Your task to perform on an android device: change alarm snooze length Image 0: 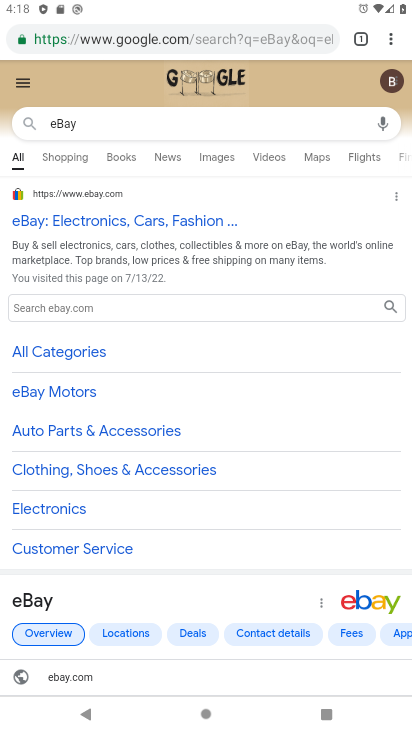
Step 0: press home button
Your task to perform on an android device: change alarm snooze length Image 1: 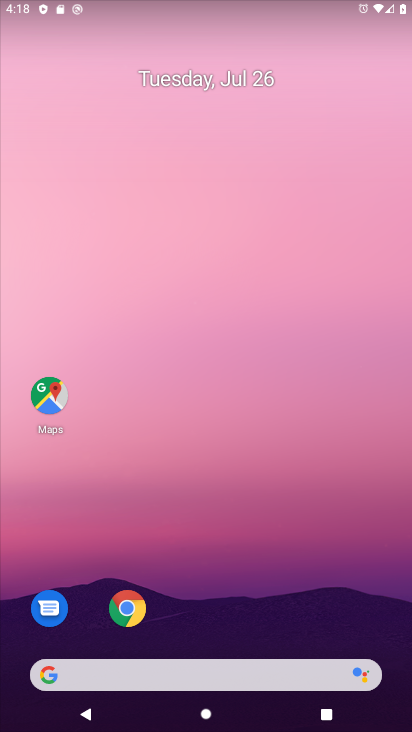
Step 1: drag from (389, 676) to (358, 118)
Your task to perform on an android device: change alarm snooze length Image 2: 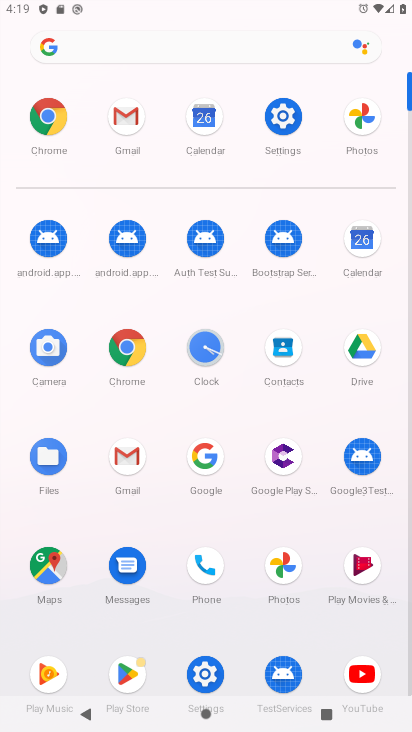
Step 2: click (211, 354)
Your task to perform on an android device: change alarm snooze length Image 3: 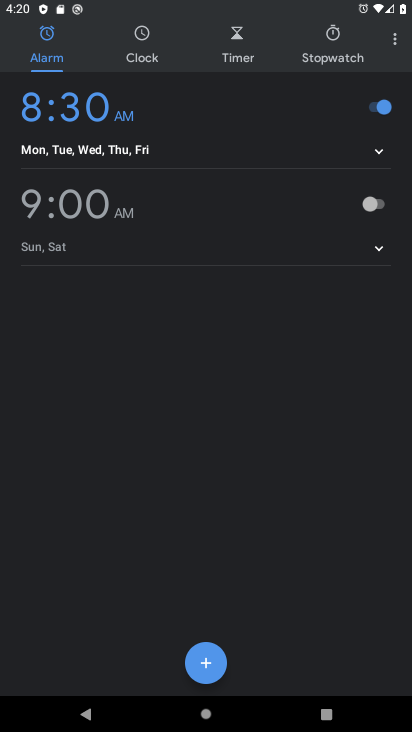
Step 3: click (399, 35)
Your task to perform on an android device: change alarm snooze length Image 4: 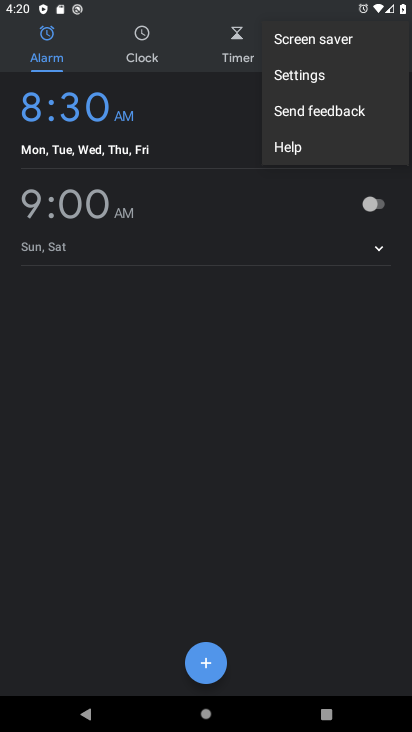
Step 4: click (319, 70)
Your task to perform on an android device: change alarm snooze length Image 5: 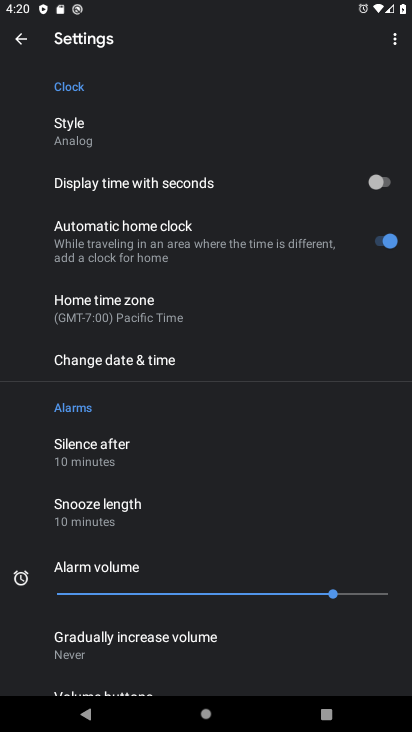
Step 5: click (95, 498)
Your task to perform on an android device: change alarm snooze length Image 6: 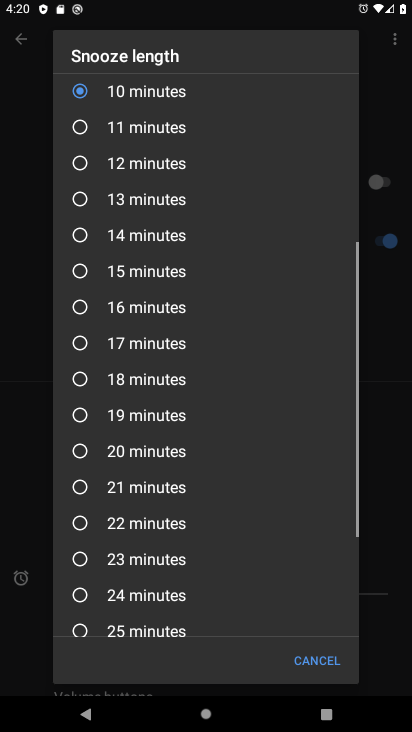
Step 6: click (77, 304)
Your task to perform on an android device: change alarm snooze length Image 7: 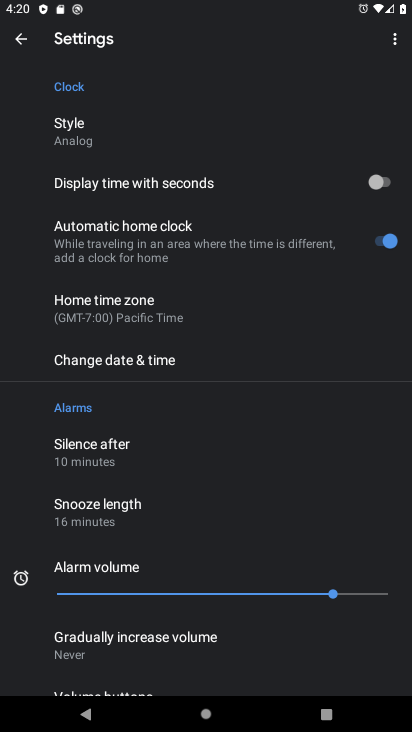
Step 7: task complete